Your task to perform on an android device: create a new album in the google photos Image 0: 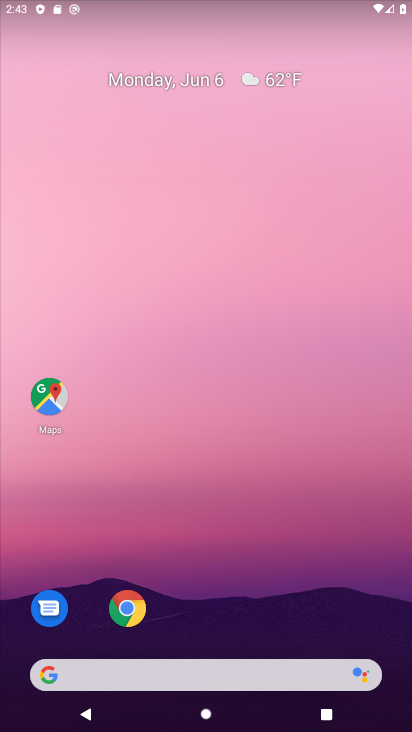
Step 0: drag from (235, 640) to (377, 54)
Your task to perform on an android device: create a new album in the google photos Image 1: 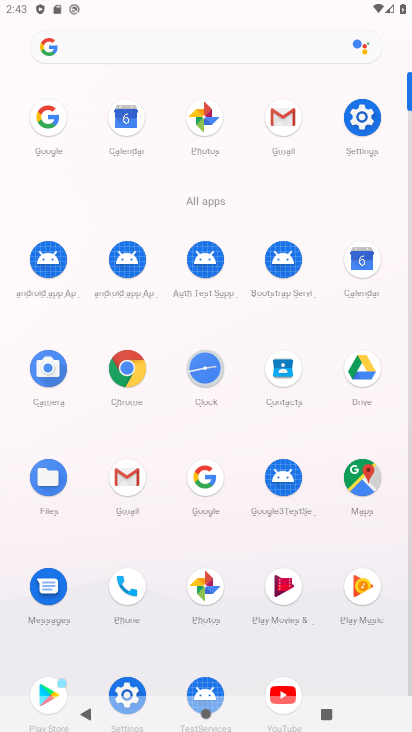
Step 1: click (204, 117)
Your task to perform on an android device: create a new album in the google photos Image 2: 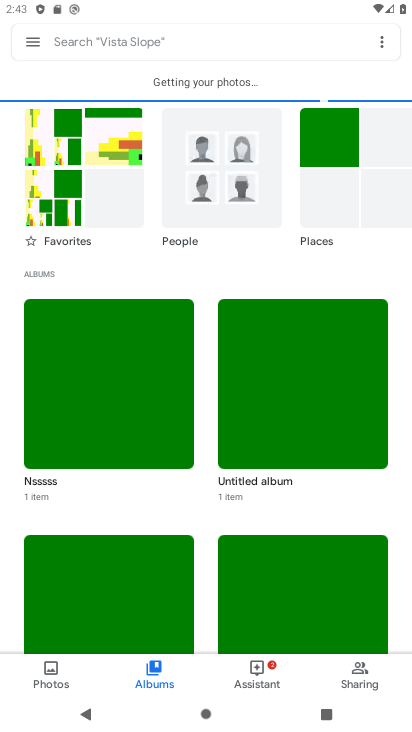
Step 2: click (371, 36)
Your task to perform on an android device: create a new album in the google photos Image 3: 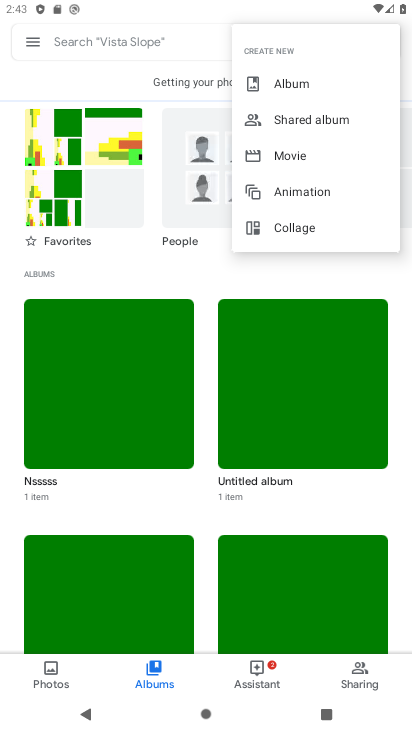
Step 3: click (310, 77)
Your task to perform on an android device: create a new album in the google photos Image 4: 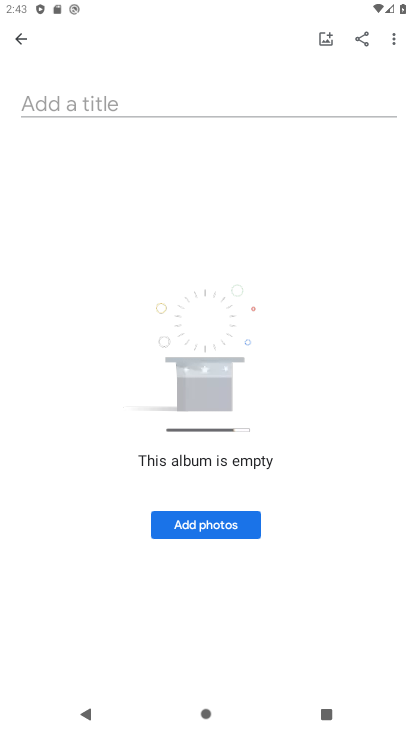
Step 4: click (181, 103)
Your task to perform on an android device: create a new album in the google photos Image 5: 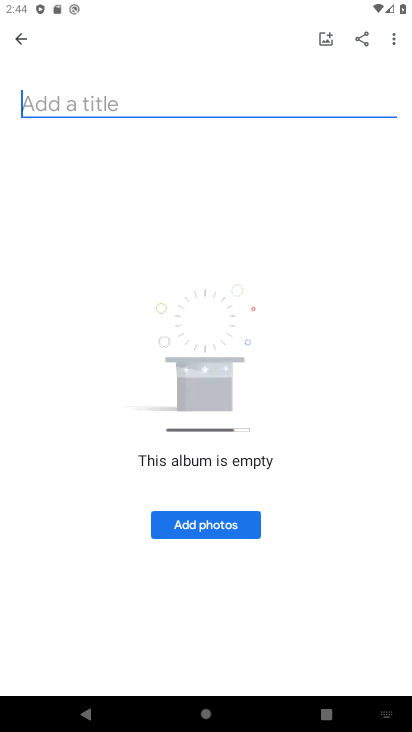
Step 5: type "zxcvbn"
Your task to perform on an android device: create a new album in the google photos Image 6: 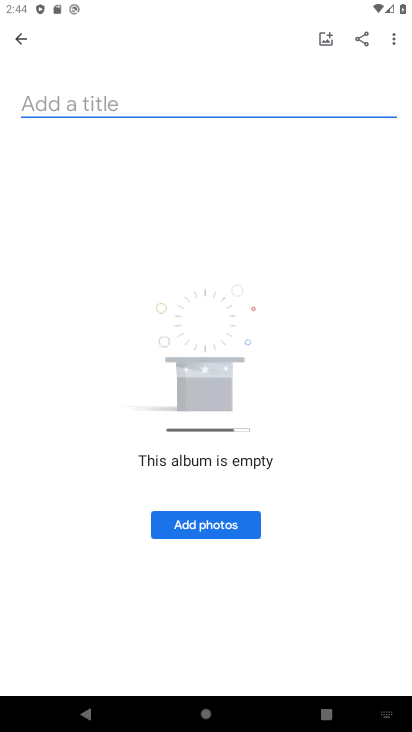
Step 6: click (188, 525)
Your task to perform on an android device: create a new album in the google photos Image 7: 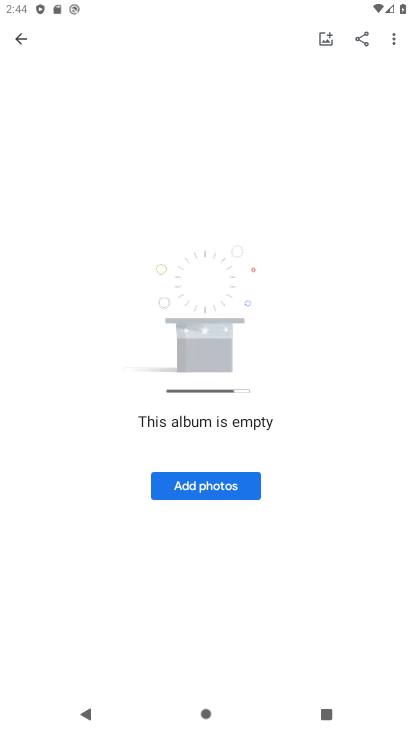
Step 7: click (166, 484)
Your task to perform on an android device: create a new album in the google photos Image 8: 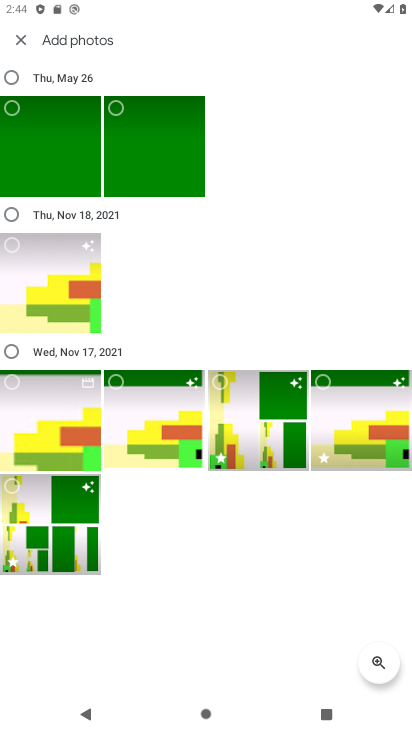
Step 8: click (52, 151)
Your task to perform on an android device: create a new album in the google photos Image 9: 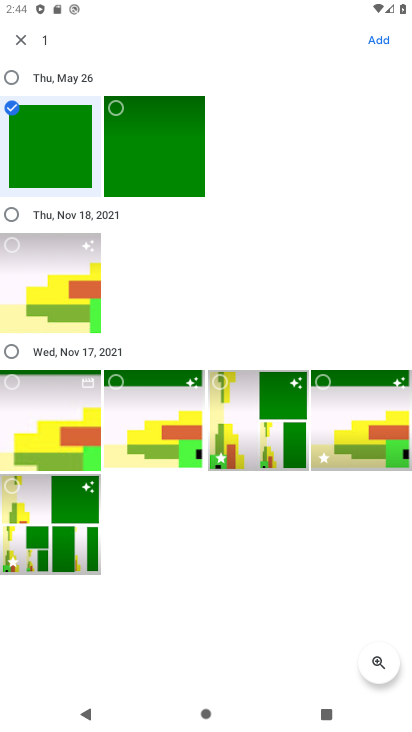
Step 9: click (383, 34)
Your task to perform on an android device: create a new album in the google photos Image 10: 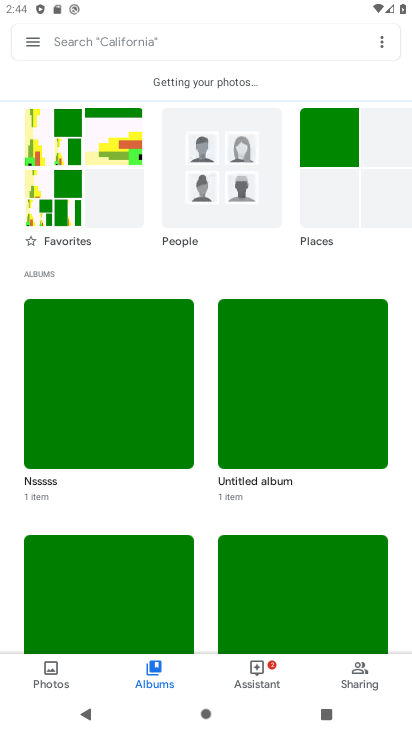
Step 10: task complete